Your task to perform on an android device: Go to notification settings Image 0: 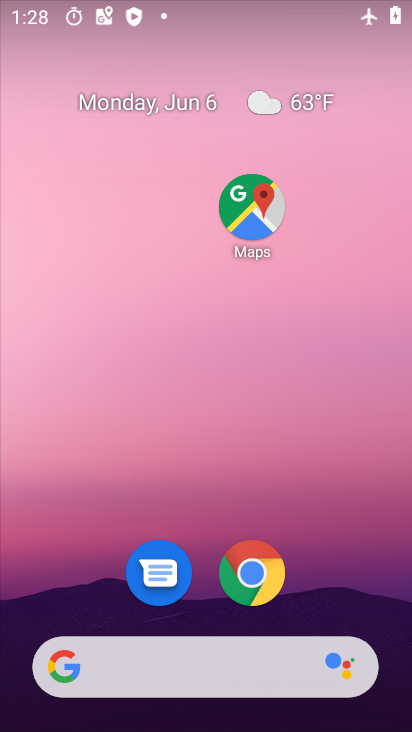
Step 0: drag from (241, 473) to (207, 67)
Your task to perform on an android device: Go to notification settings Image 1: 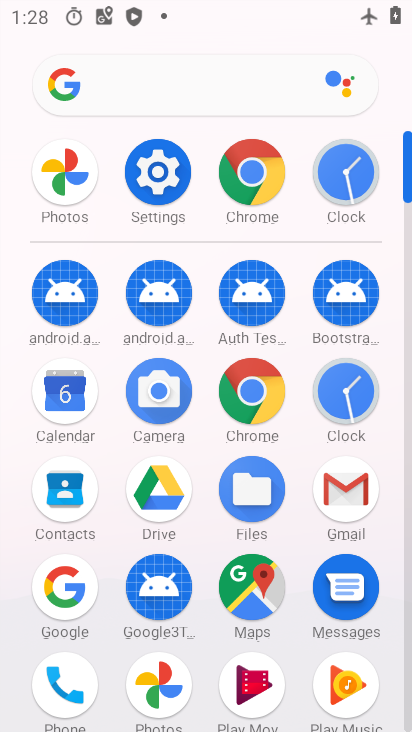
Step 1: drag from (206, 237) to (217, 14)
Your task to perform on an android device: Go to notification settings Image 2: 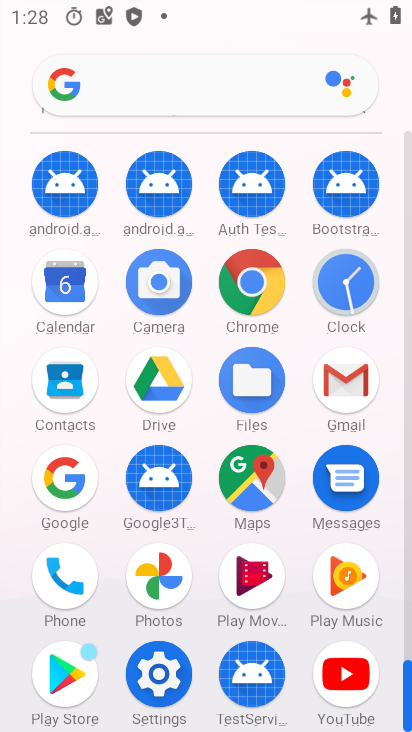
Step 2: click (150, 673)
Your task to perform on an android device: Go to notification settings Image 3: 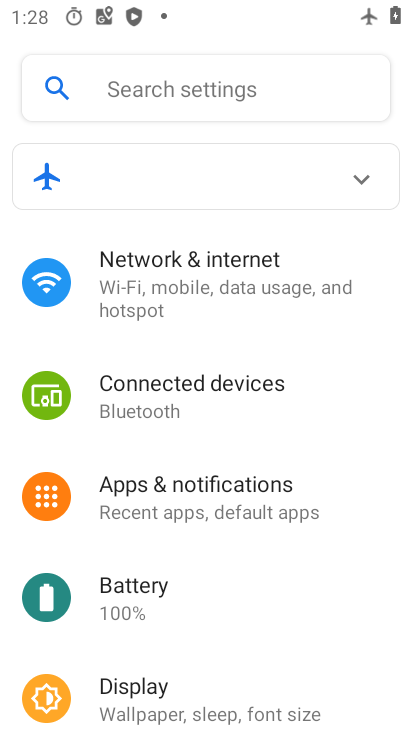
Step 3: click (219, 499)
Your task to perform on an android device: Go to notification settings Image 4: 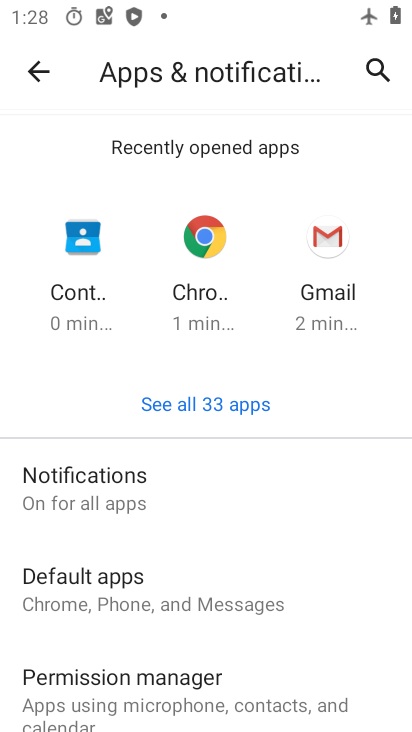
Step 4: click (147, 499)
Your task to perform on an android device: Go to notification settings Image 5: 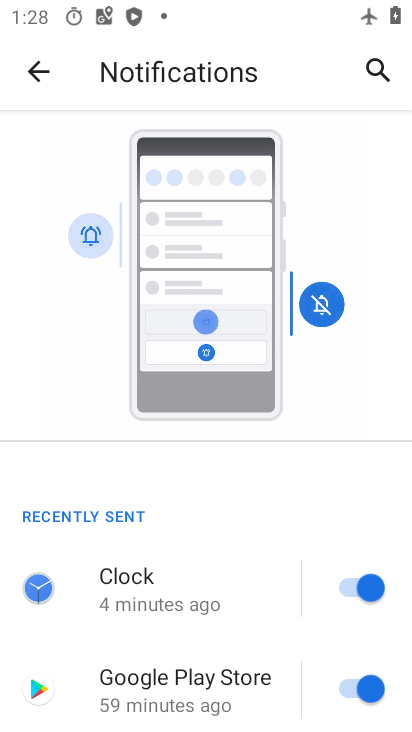
Step 5: task complete